Your task to perform on an android device: Empty the shopping cart on newegg.com. Add beats solo 3 to the cart on newegg.com Image 0: 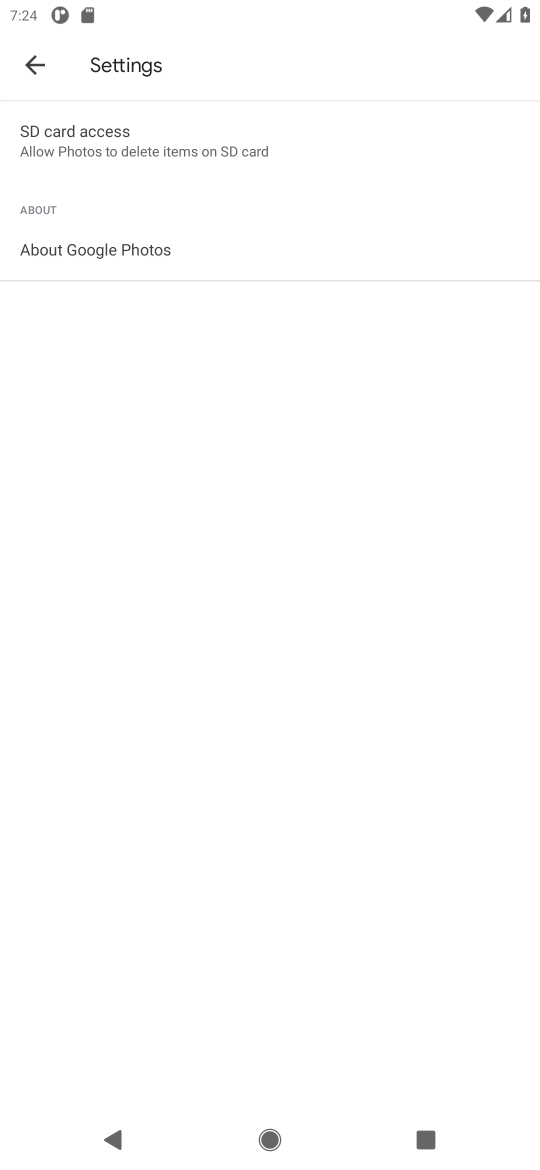
Step 0: press home button
Your task to perform on an android device: Empty the shopping cart on newegg.com. Add beats solo 3 to the cart on newegg.com Image 1: 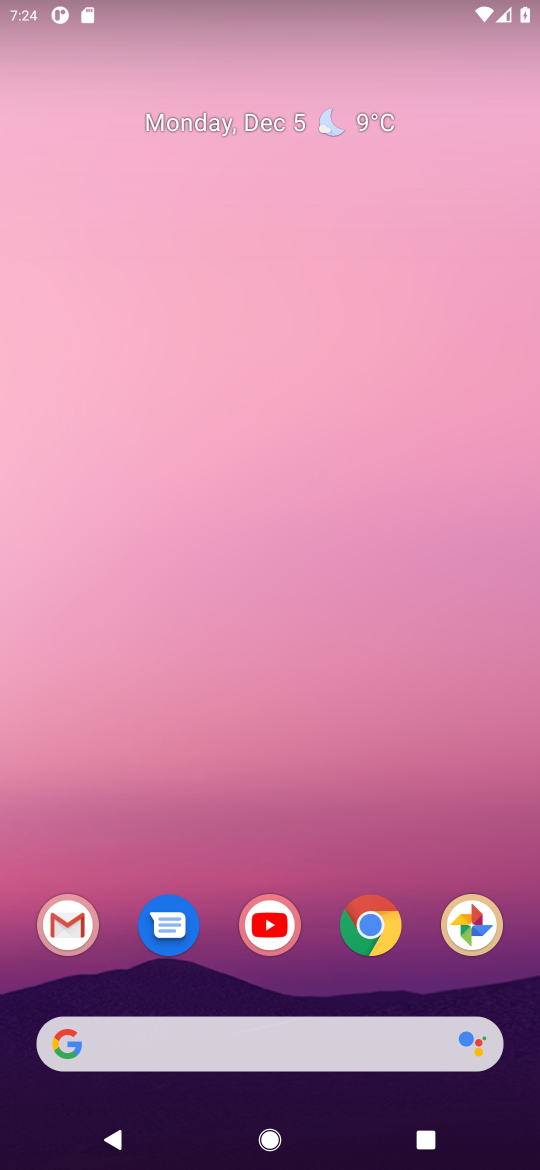
Step 1: click (371, 938)
Your task to perform on an android device: Empty the shopping cart on newegg.com. Add beats solo 3 to the cart on newegg.com Image 2: 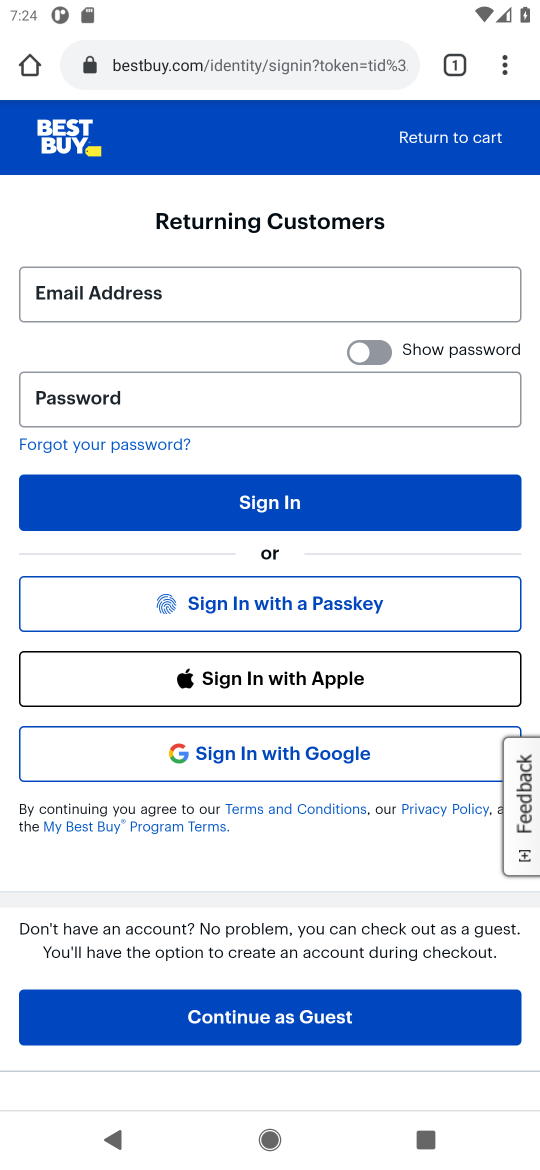
Step 2: click (197, 73)
Your task to perform on an android device: Empty the shopping cart on newegg.com. Add beats solo 3 to the cart on newegg.com Image 3: 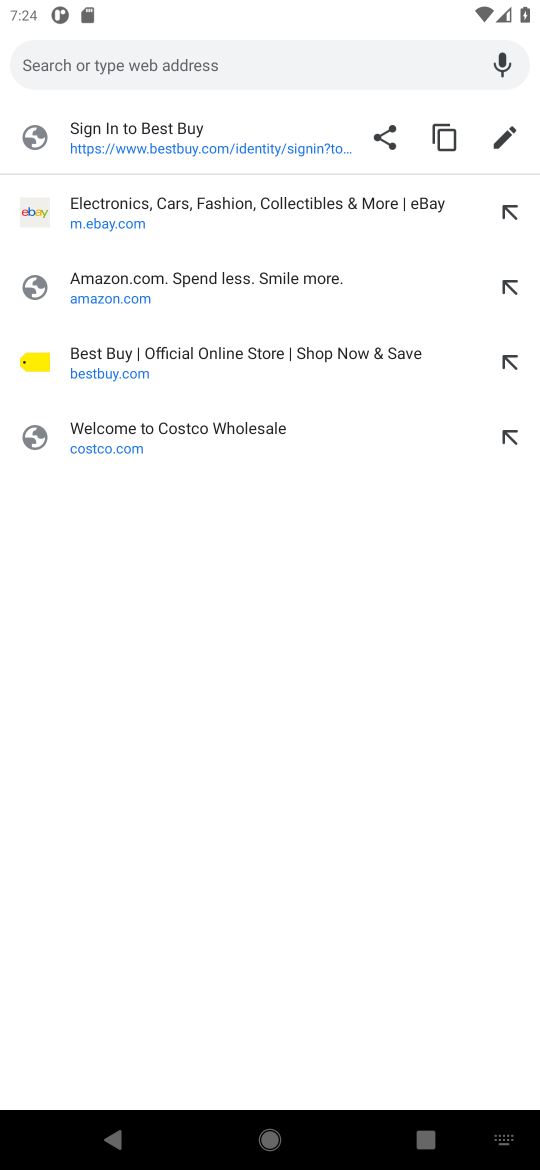
Step 3: type "newegg.com"
Your task to perform on an android device: Empty the shopping cart on newegg.com. Add beats solo 3 to the cart on newegg.com Image 4: 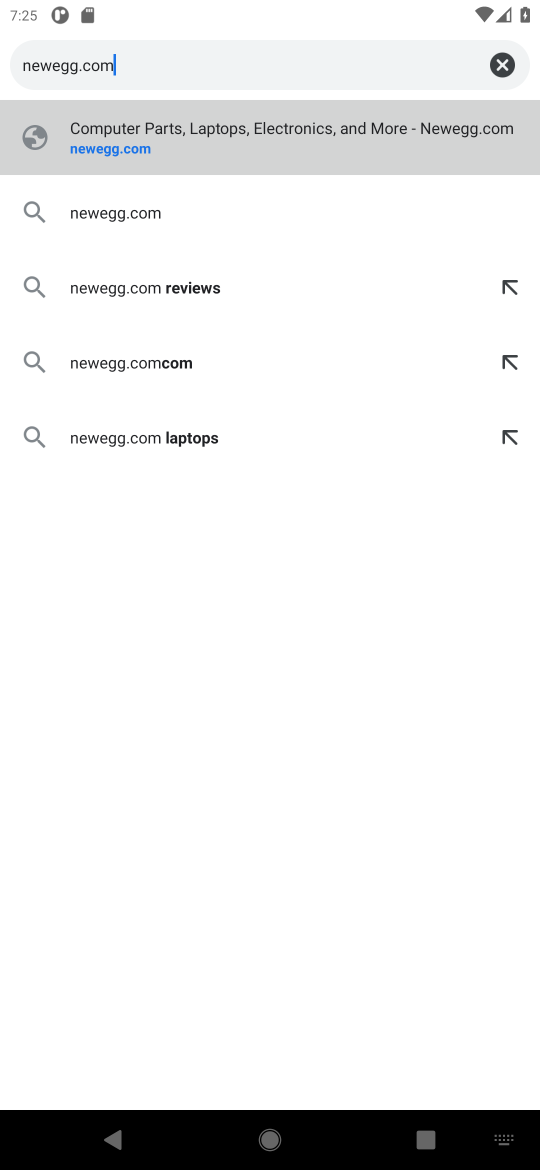
Step 4: click (94, 159)
Your task to perform on an android device: Empty the shopping cart on newegg.com. Add beats solo 3 to the cart on newegg.com Image 5: 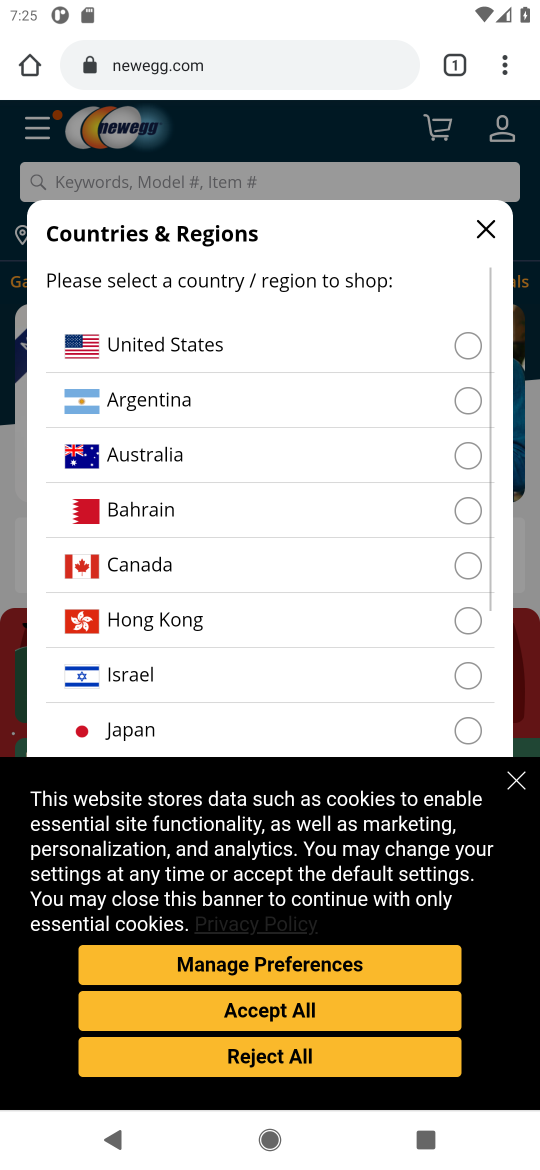
Step 5: click (526, 786)
Your task to perform on an android device: Empty the shopping cart on newegg.com. Add beats solo 3 to the cart on newegg.com Image 6: 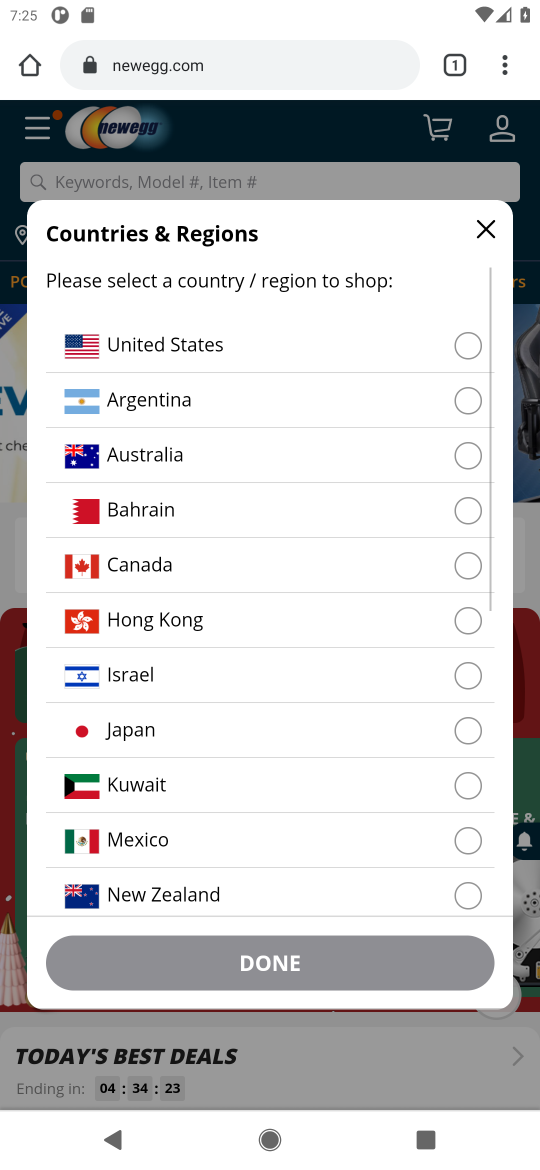
Step 6: click (122, 354)
Your task to perform on an android device: Empty the shopping cart on newegg.com. Add beats solo 3 to the cart on newegg.com Image 7: 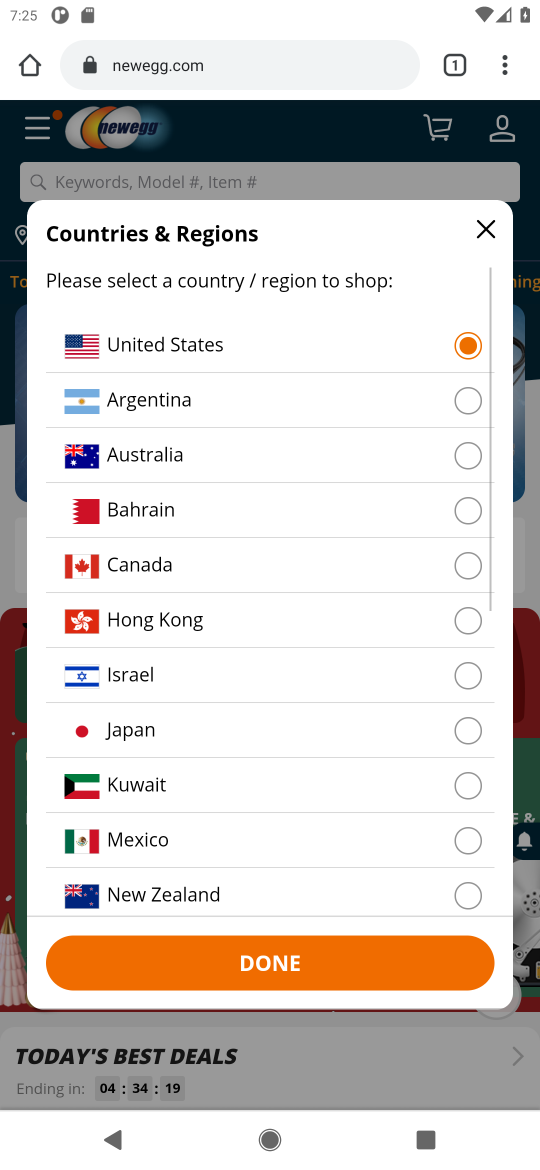
Step 7: click (234, 960)
Your task to perform on an android device: Empty the shopping cart on newegg.com. Add beats solo 3 to the cart on newegg.com Image 8: 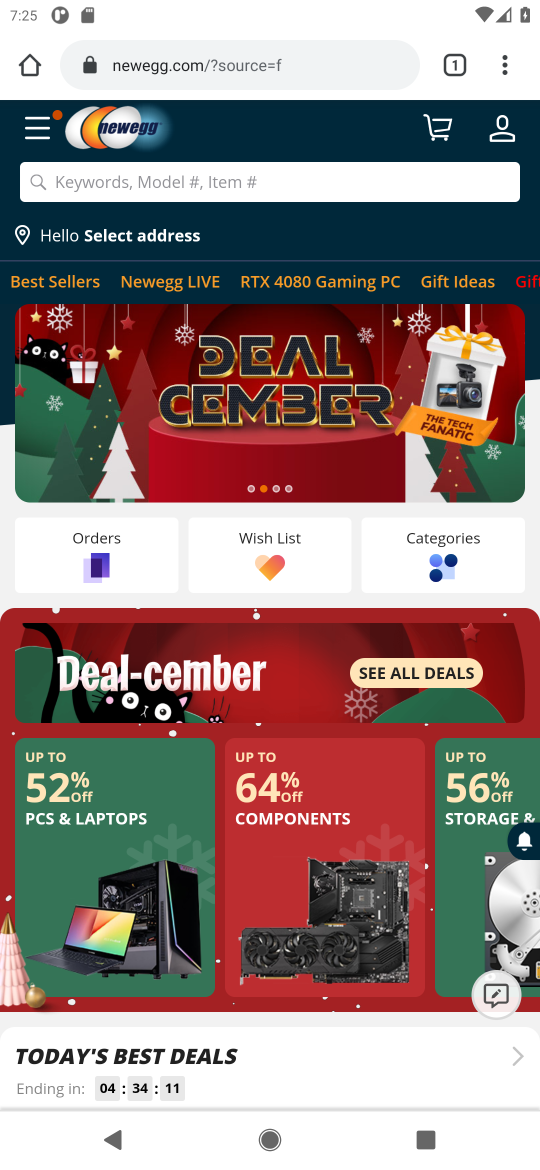
Step 8: click (434, 125)
Your task to perform on an android device: Empty the shopping cart on newegg.com. Add beats solo 3 to the cart on newegg.com Image 9: 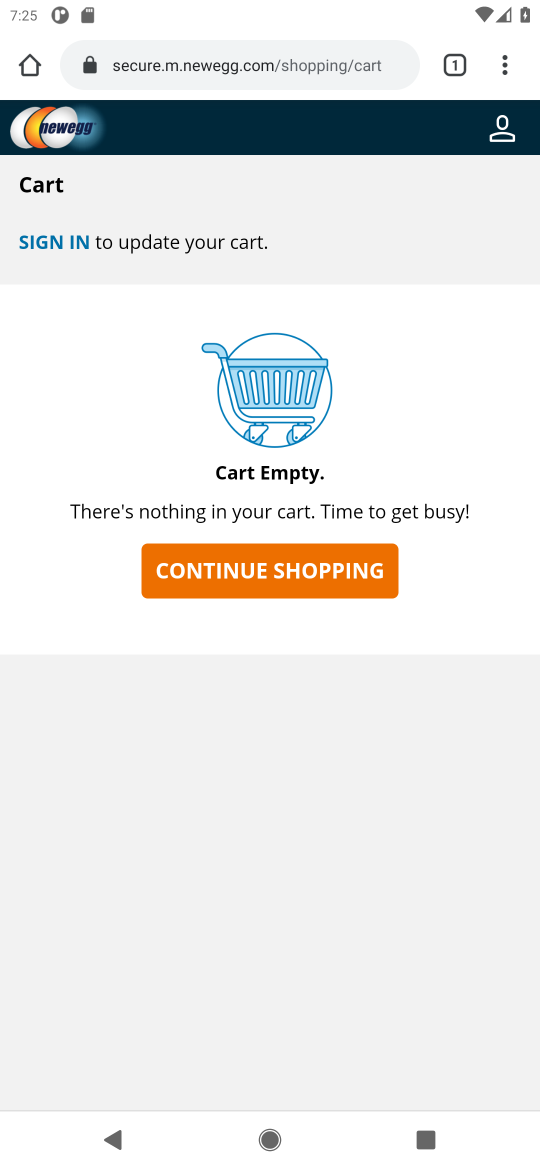
Step 9: click (266, 578)
Your task to perform on an android device: Empty the shopping cart on newegg.com. Add beats solo 3 to the cart on newegg.com Image 10: 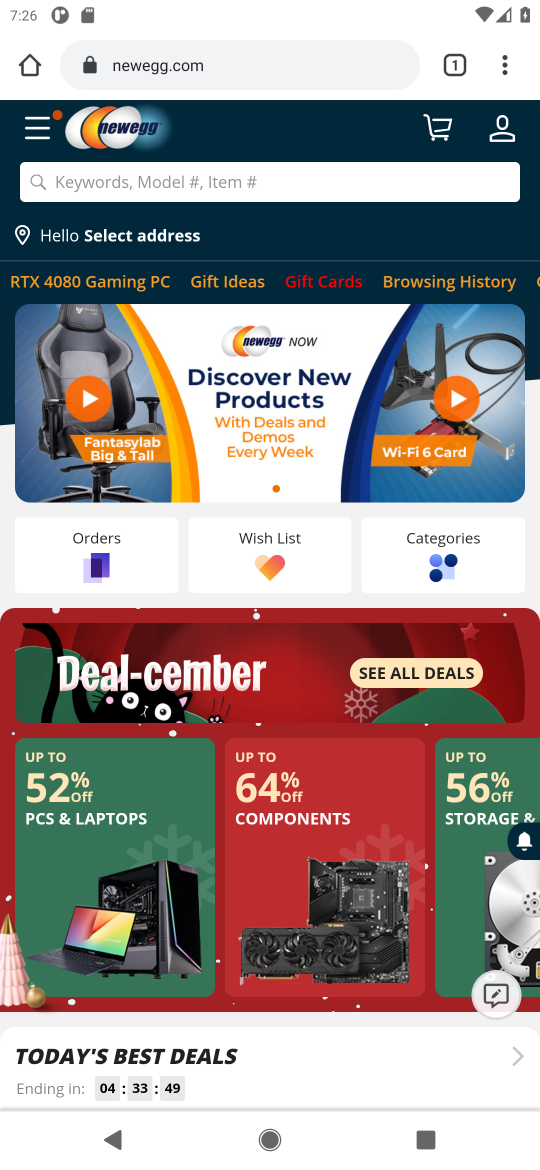
Step 10: click (67, 180)
Your task to perform on an android device: Empty the shopping cart on newegg.com. Add beats solo 3 to the cart on newegg.com Image 11: 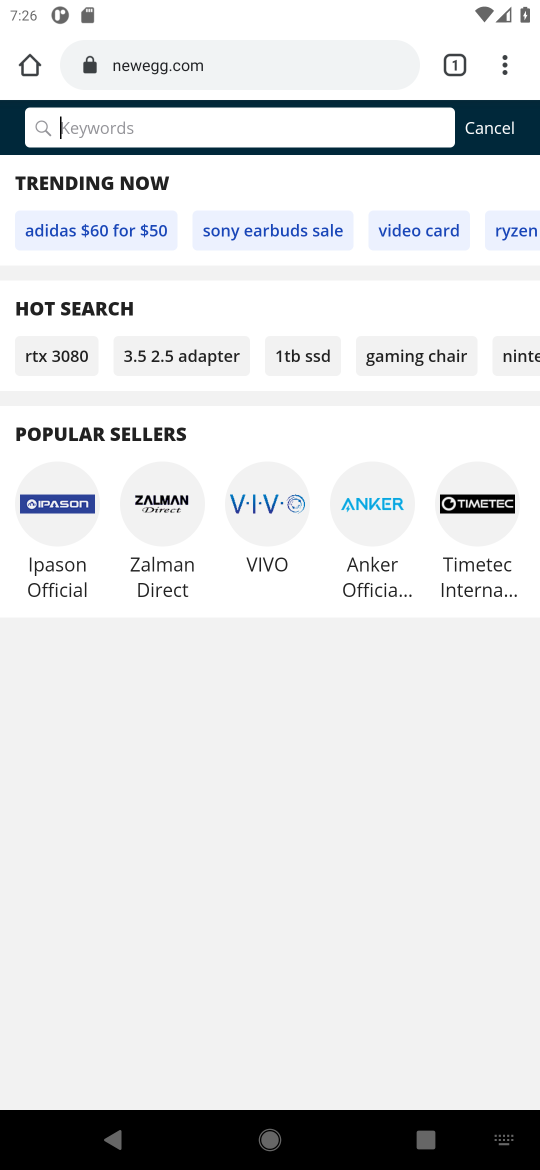
Step 11: type "beats solo 3"
Your task to perform on an android device: Empty the shopping cart on newegg.com. Add beats solo 3 to the cart on newegg.com Image 12: 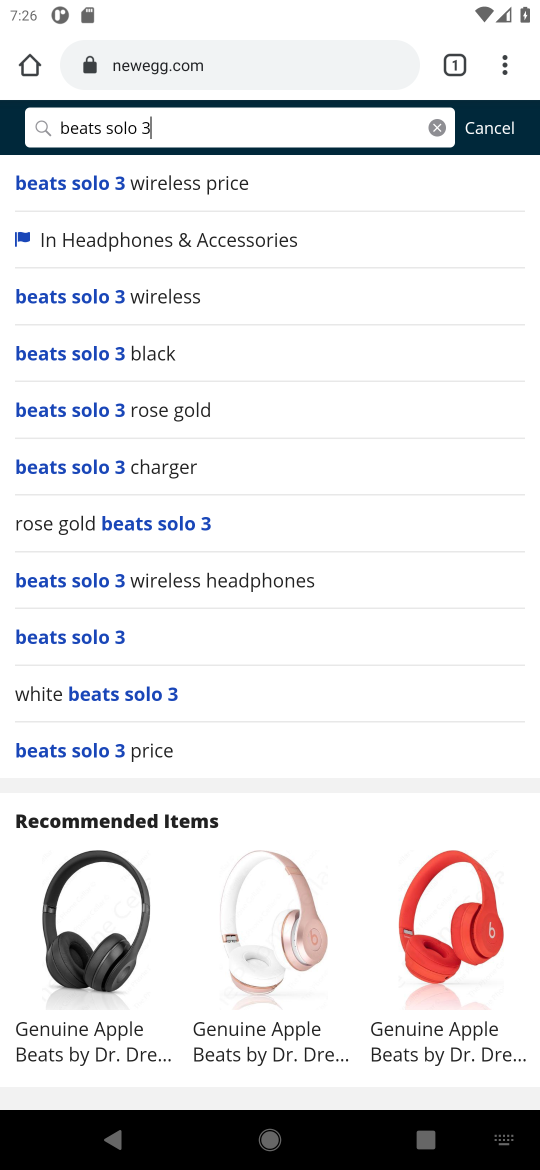
Step 12: click (140, 189)
Your task to perform on an android device: Empty the shopping cart on newegg.com. Add beats solo 3 to the cart on newegg.com Image 13: 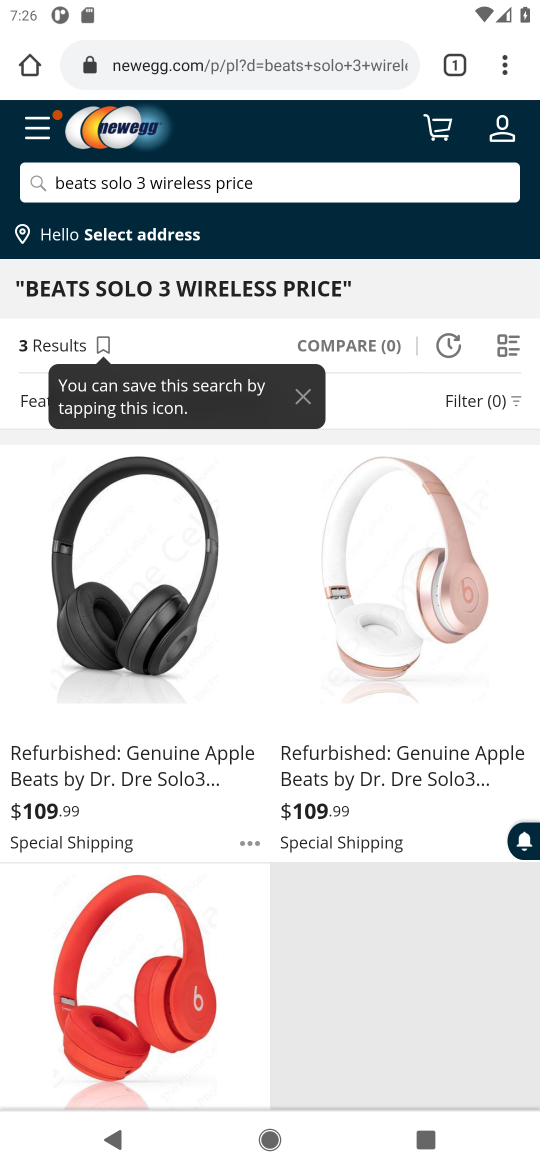
Step 13: click (101, 586)
Your task to perform on an android device: Empty the shopping cart on newegg.com. Add beats solo 3 to the cart on newegg.com Image 14: 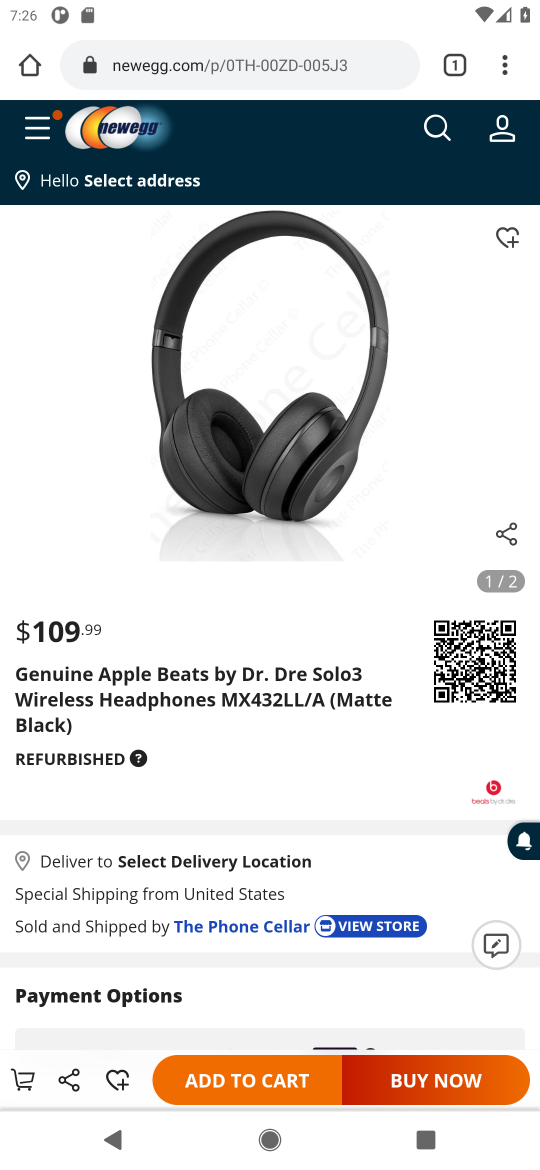
Step 14: click (215, 1069)
Your task to perform on an android device: Empty the shopping cart on newegg.com. Add beats solo 3 to the cart on newegg.com Image 15: 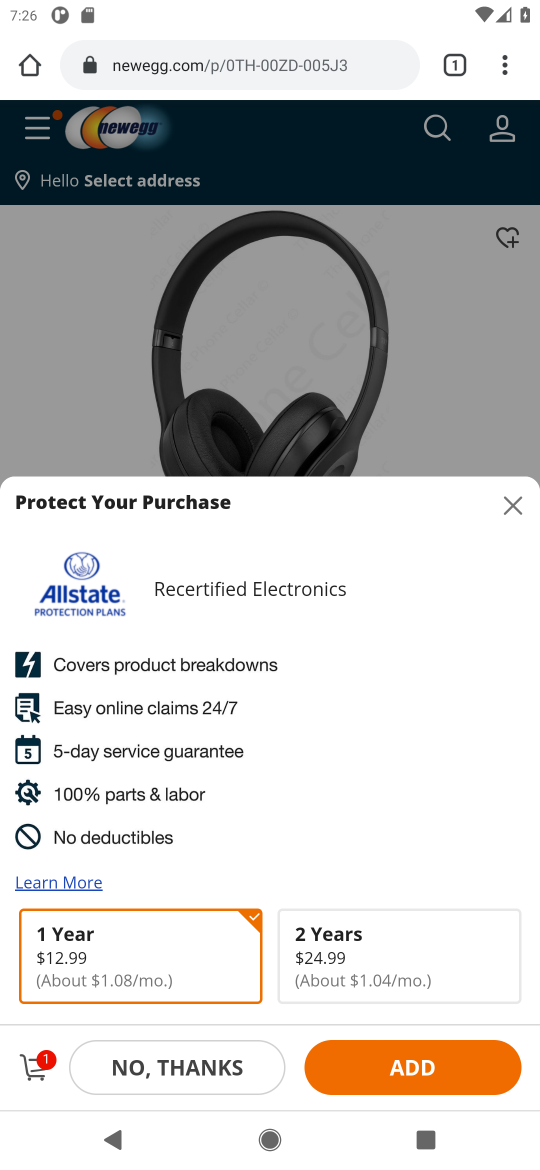
Step 15: task complete